Your task to perform on an android device: Search for the most popular coffee table on Crate & Barrel Image 0: 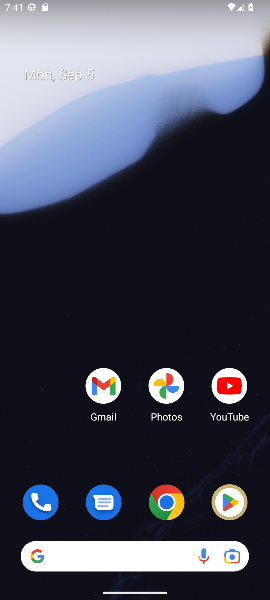
Step 0: drag from (198, 365) to (164, 19)
Your task to perform on an android device: Search for the most popular coffee table on Crate & Barrel Image 1: 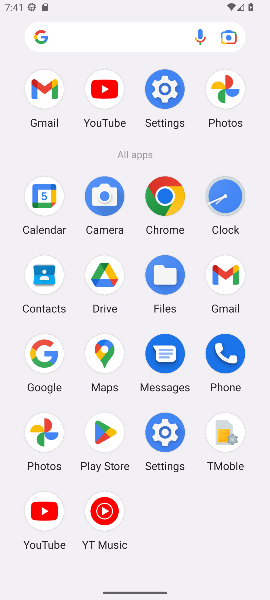
Step 1: click (45, 351)
Your task to perform on an android device: Search for the most popular coffee table on Crate & Barrel Image 2: 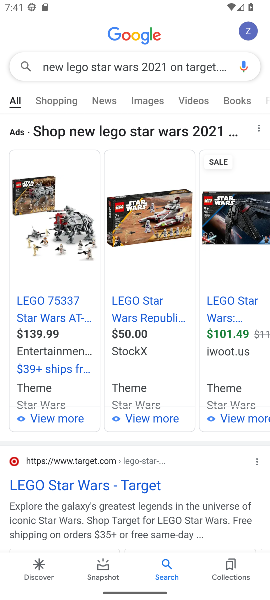
Step 2: press back button
Your task to perform on an android device: Search for the most popular coffee table on Crate & Barrel Image 3: 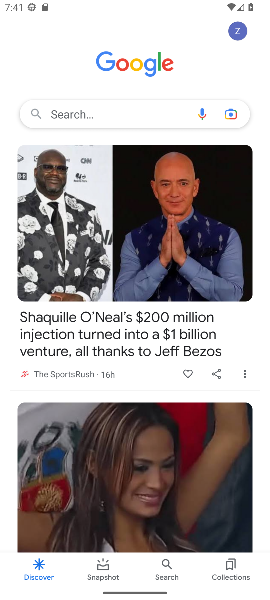
Step 3: click (66, 110)
Your task to perform on an android device: Search for the most popular coffee table on Crate & Barrel Image 4: 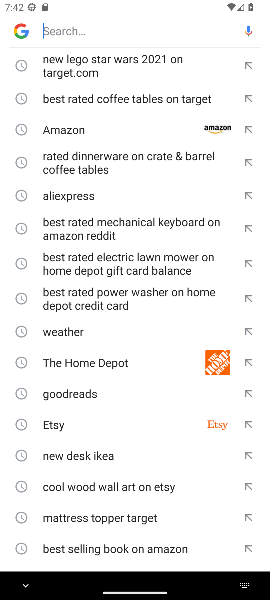
Step 4: type " coffee table on Crate & Barrel"
Your task to perform on an android device: Search for the most popular coffee table on Crate & Barrel Image 5: 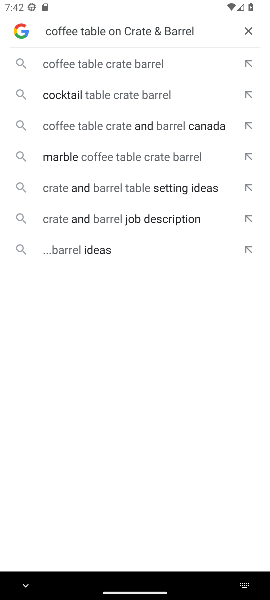
Step 5: click (112, 71)
Your task to perform on an android device: Search for the most popular coffee table on Crate & Barrel Image 6: 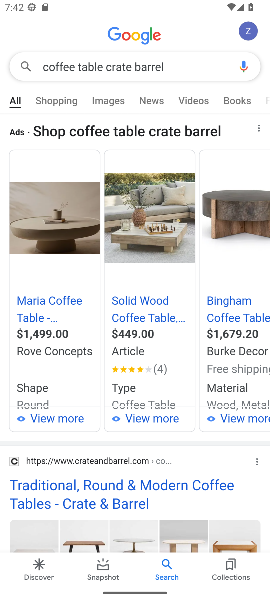
Step 6: task complete